Your task to perform on an android device: change your default location settings in chrome Image 0: 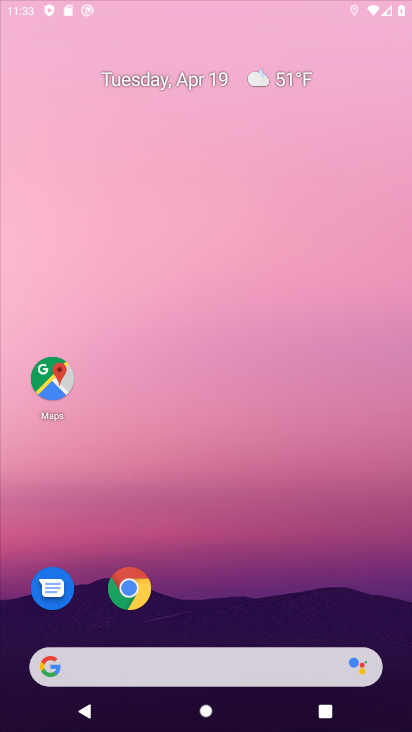
Step 0: drag from (228, 513) to (290, 76)
Your task to perform on an android device: change your default location settings in chrome Image 1: 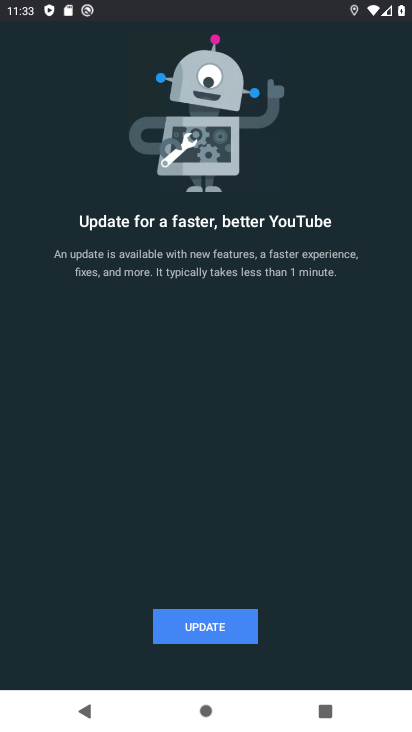
Step 1: press home button
Your task to perform on an android device: change your default location settings in chrome Image 2: 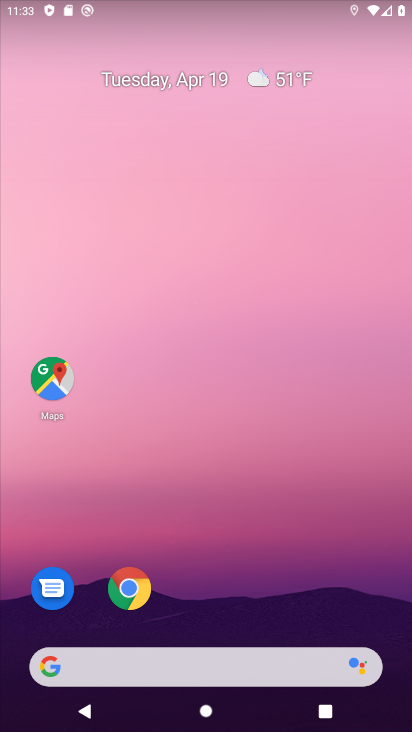
Step 2: click (130, 582)
Your task to perform on an android device: change your default location settings in chrome Image 3: 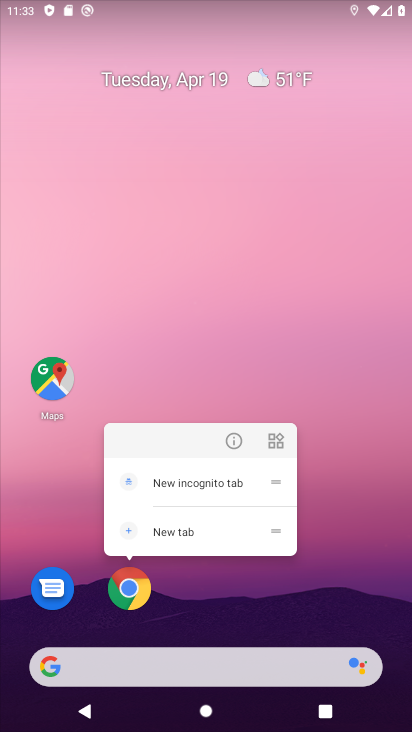
Step 3: click (272, 295)
Your task to perform on an android device: change your default location settings in chrome Image 4: 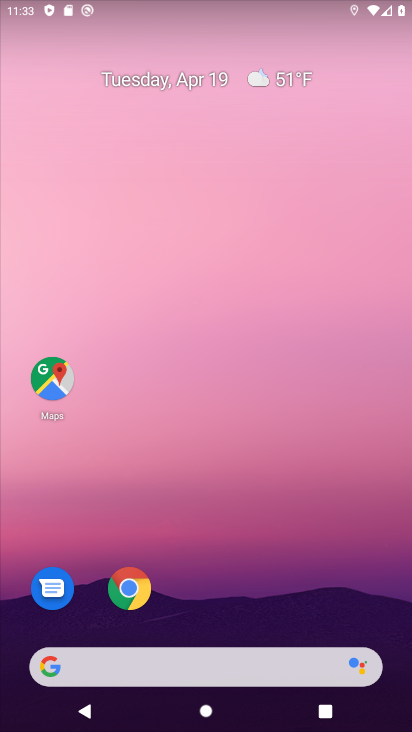
Step 4: click (129, 579)
Your task to perform on an android device: change your default location settings in chrome Image 5: 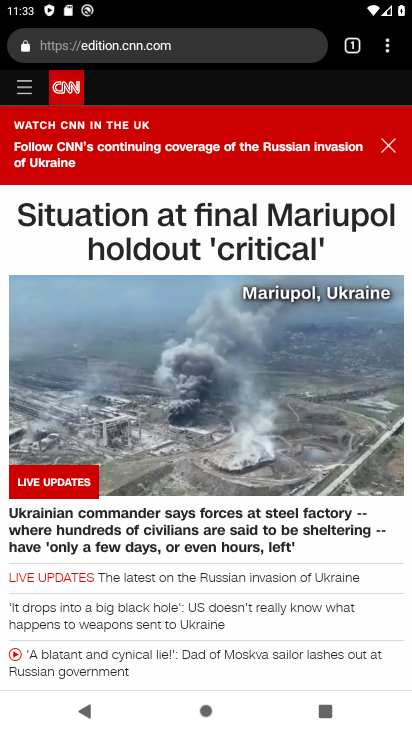
Step 5: click (392, 40)
Your task to perform on an android device: change your default location settings in chrome Image 6: 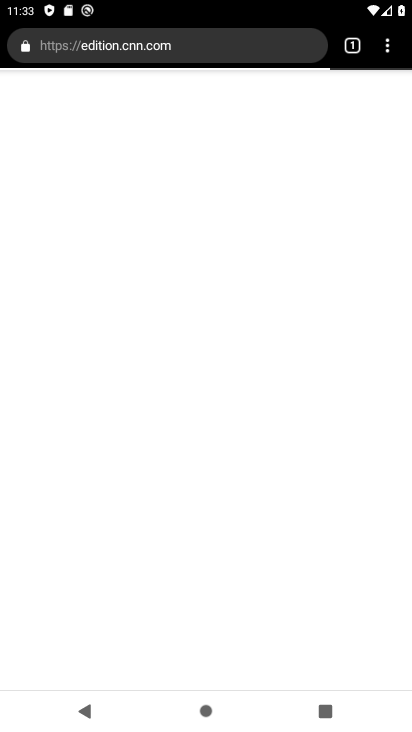
Step 6: click (386, 47)
Your task to perform on an android device: change your default location settings in chrome Image 7: 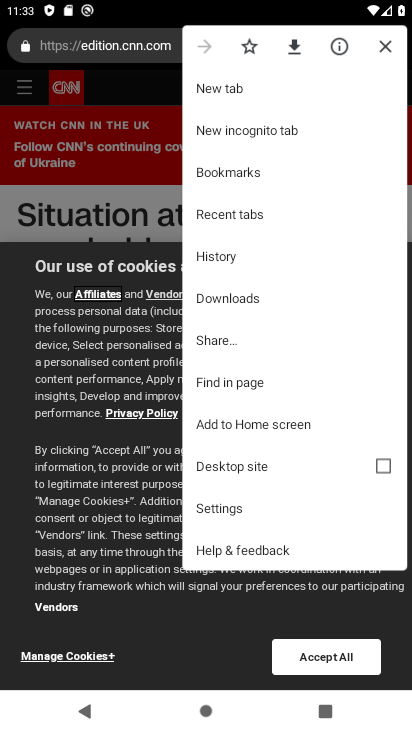
Step 7: click (245, 509)
Your task to perform on an android device: change your default location settings in chrome Image 8: 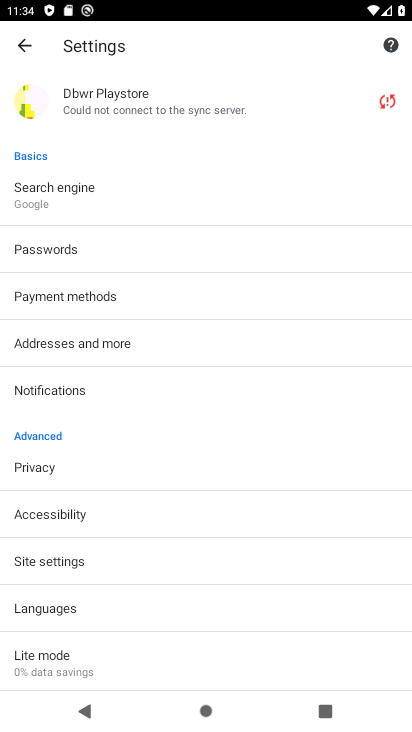
Step 8: click (97, 566)
Your task to perform on an android device: change your default location settings in chrome Image 9: 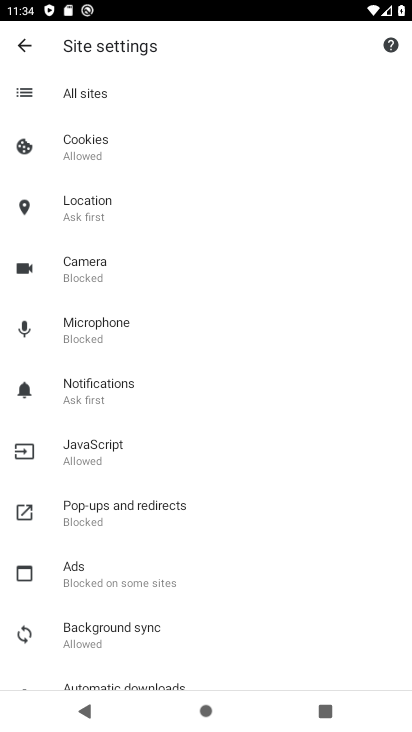
Step 9: click (124, 201)
Your task to perform on an android device: change your default location settings in chrome Image 10: 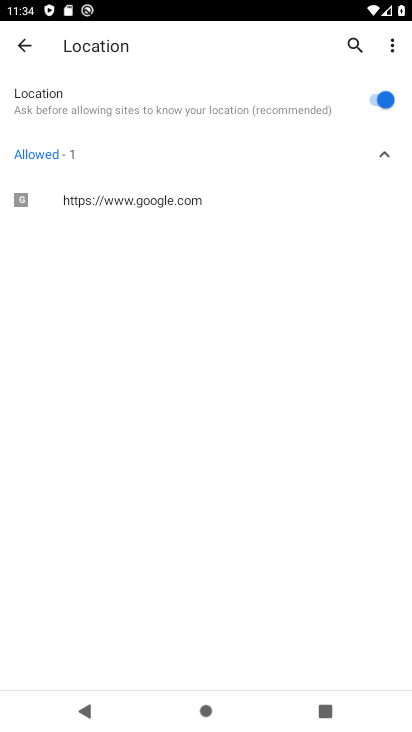
Step 10: click (375, 93)
Your task to perform on an android device: change your default location settings in chrome Image 11: 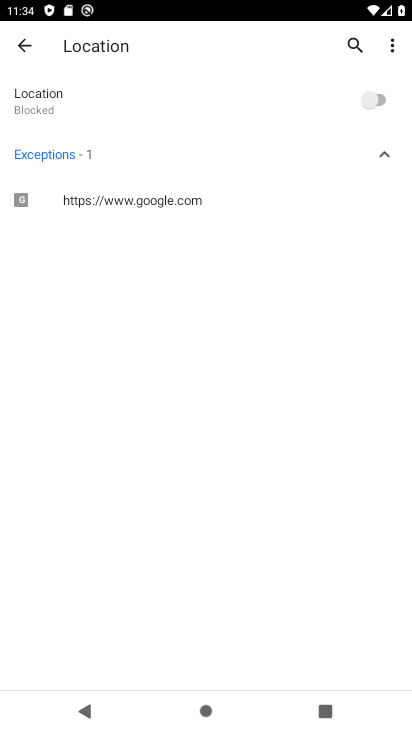
Step 11: task complete